Your task to perform on an android device: delete browsing data in the chrome app Image 0: 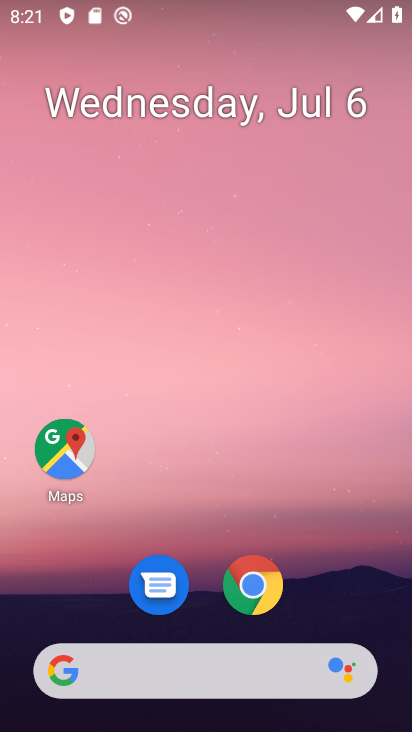
Step 0: click (247, 584)
Your task to perform on an android device: delete browsing data in the chrome app Image 1: 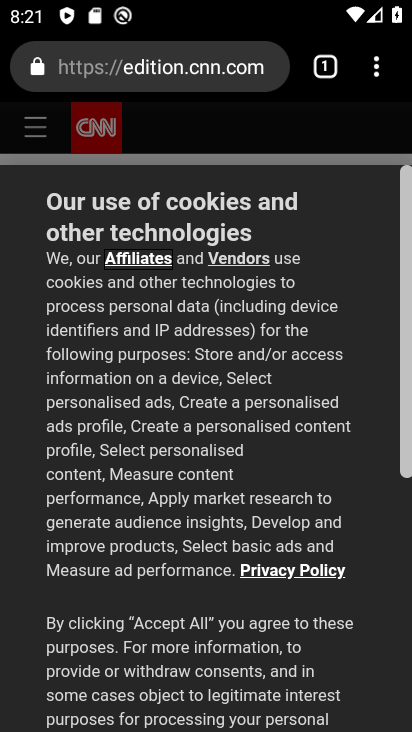
Step 1: click (379, 71)
Your task to perform on an android device: delete browsing data in the chrome app Image 2: 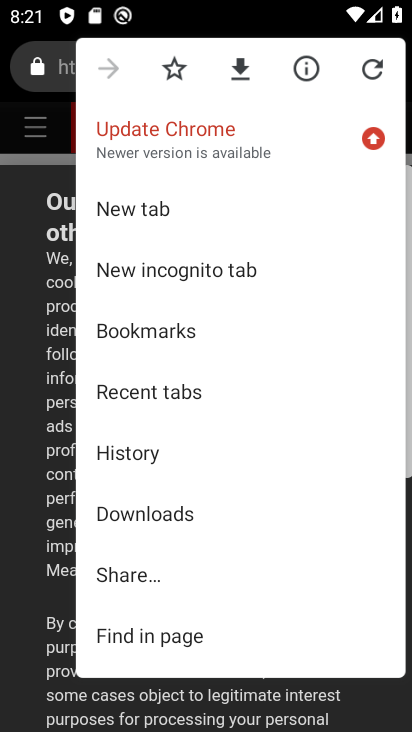
Step 2: click (141, 451)
Your task to perform on an android device: delete browsing data in the chrome app Image 3: 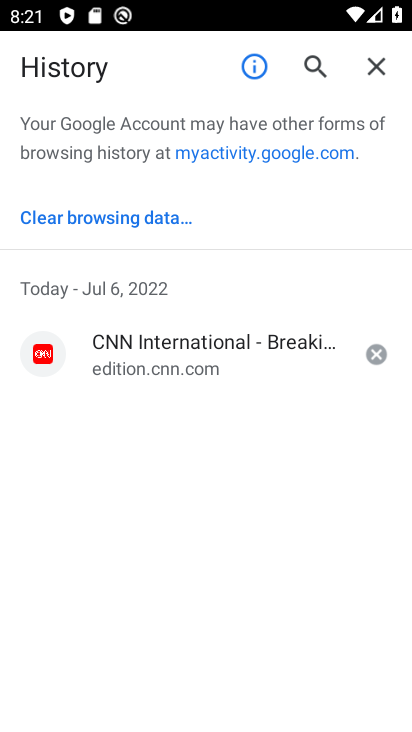
Step 3: click (151, 217)
Your task to perform on an android device: delete browsing data in the chrome app Image 4: 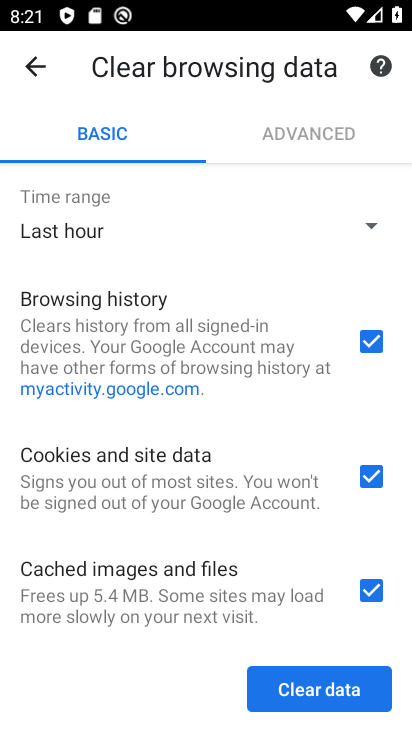
Step 4: click (305, 687)
Your task to perform on an android device: delete browsing data in the chrome app Image 5: 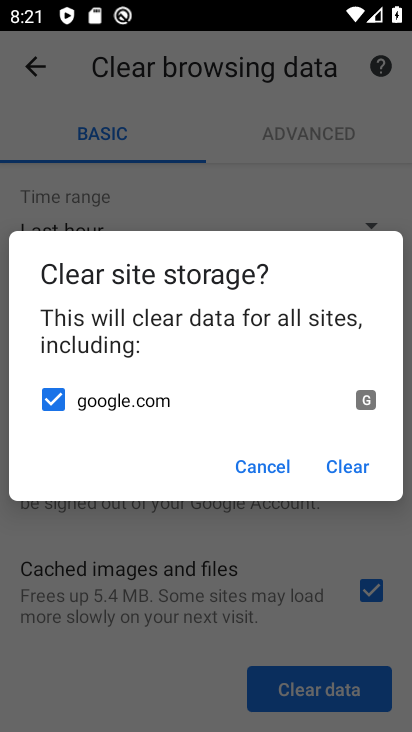
Step 5: click (357, 457)
Your task to perform on an android device: delete browsing data in the chrome app Image 6: 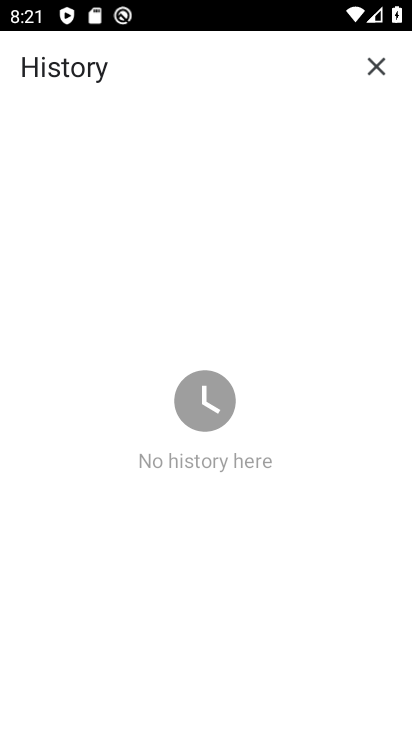
Step 6: task complete